Your task to perform on an android device: Do I have any events this weekend? Image 0: 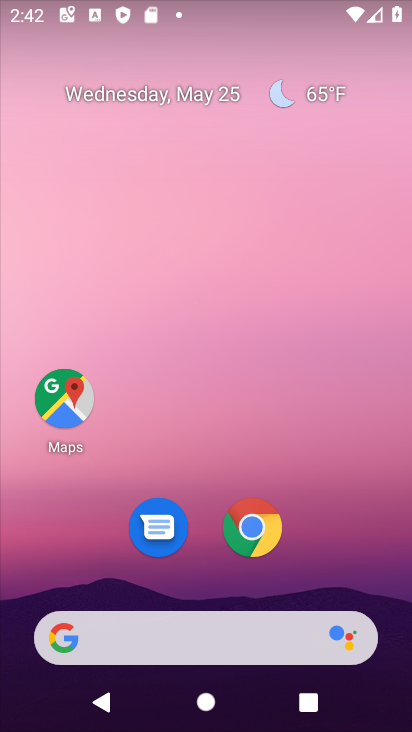
Step 0: drag from (236, 611) to (277, 36)
Your task to perform on an android device: Do I have any events this weekend? Image 1: 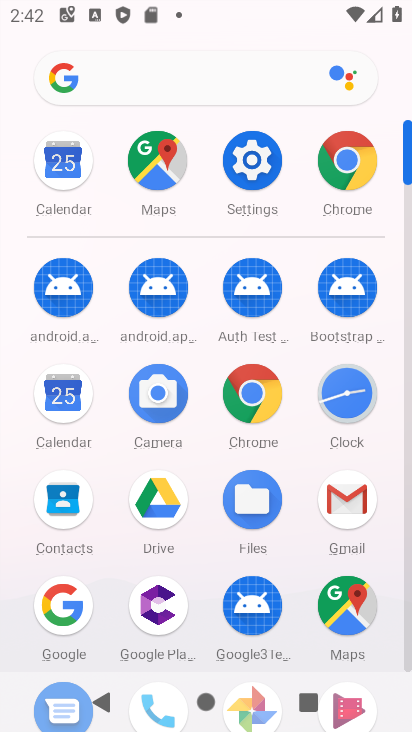
Step 1: click (57, 398)
Your task to perform on an android device: Do I have any events this weekend? Image 2: 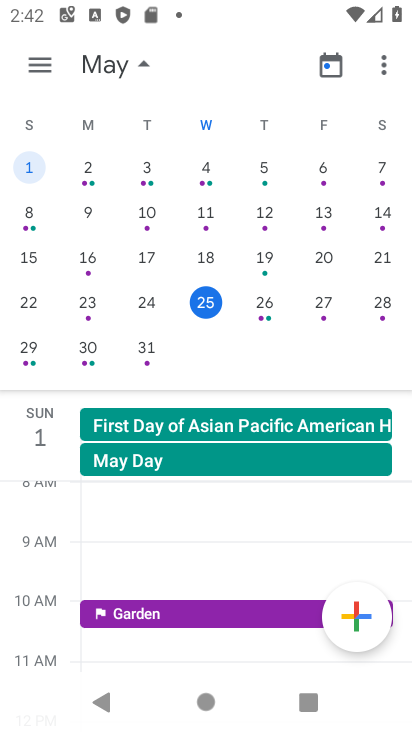
Step 2: click (372, 303)
Your task to perform on an android device: Do I have any events this weekend? Image 3: 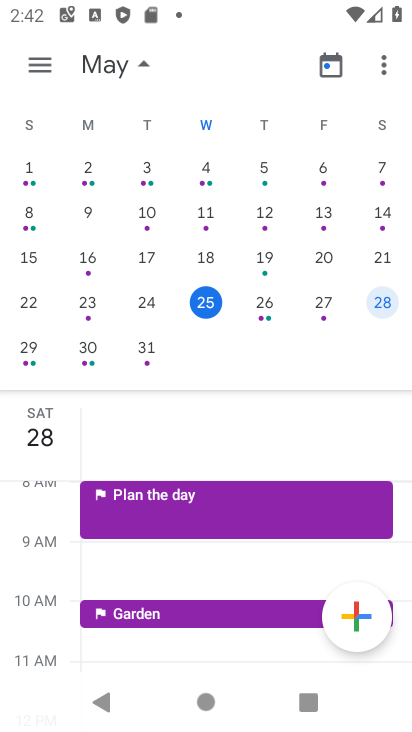
Step 3: task complete